Your task to perform on an android device: turn off smart reply in the gmail app Image 0: 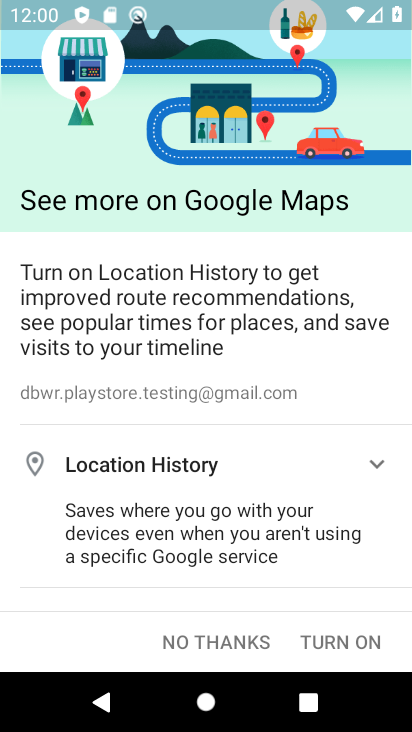
Step 0: press home button
Your task to perform on an android device: turn off smart reply in the gmail app Image 1: 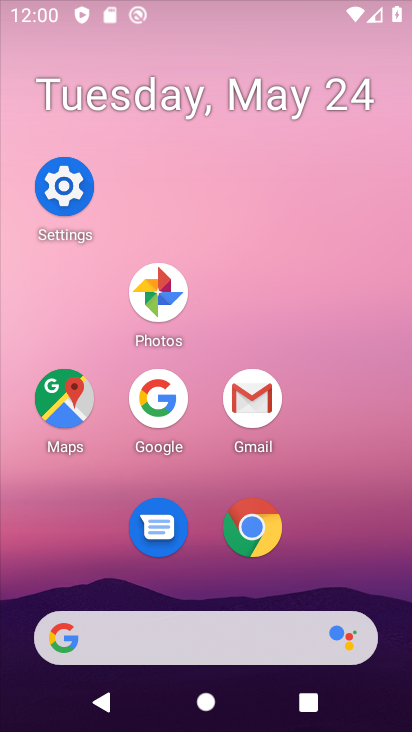
Step 1: click (247, 418)
Your task to perform on an android device: turn off smart reply in the gmail app Image 2: 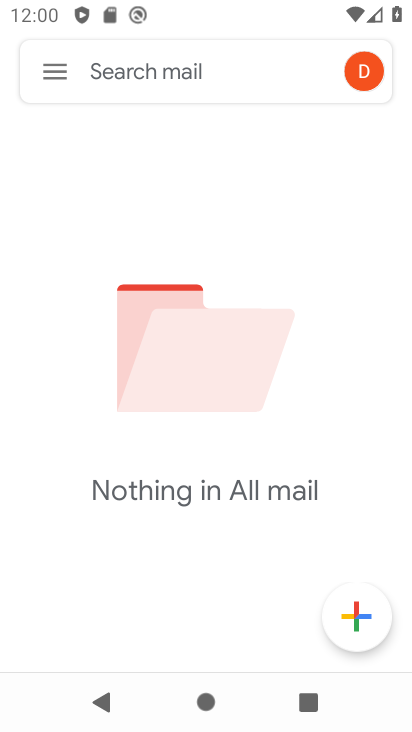
Step 2: click (64, 54)
Your task to perform on an android device: turn off smart reply in the gmail app Image 3: 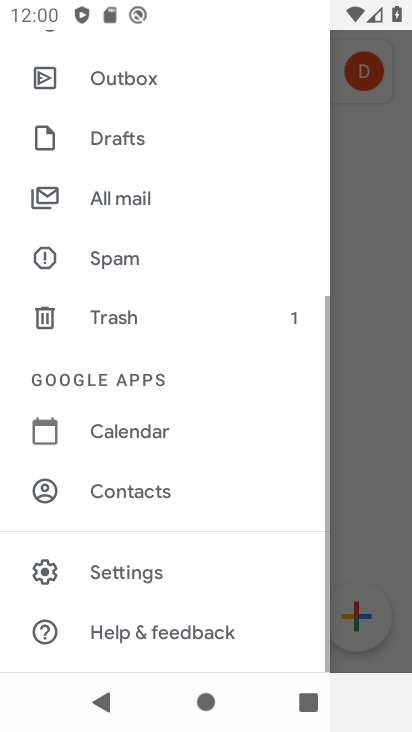
Step 3: drag from (149, 585) to (190, 209)
Your task to perform on an android device: turn off smart reply in the gmail app Image 4: 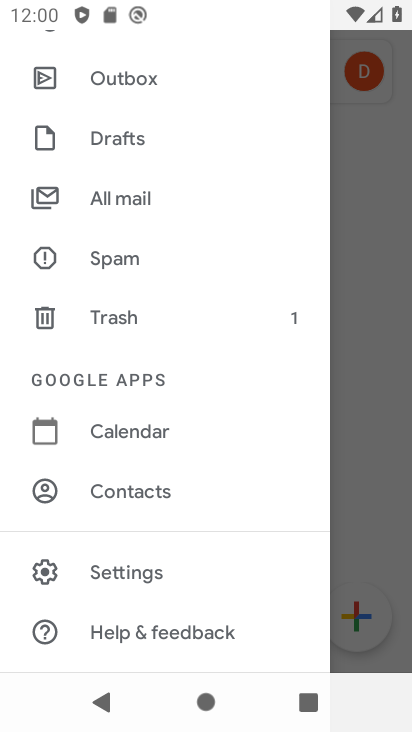
Step 4: click (175, 582)
Your task to perform on an android device: turn off smart reply in the gmail app Image 5: 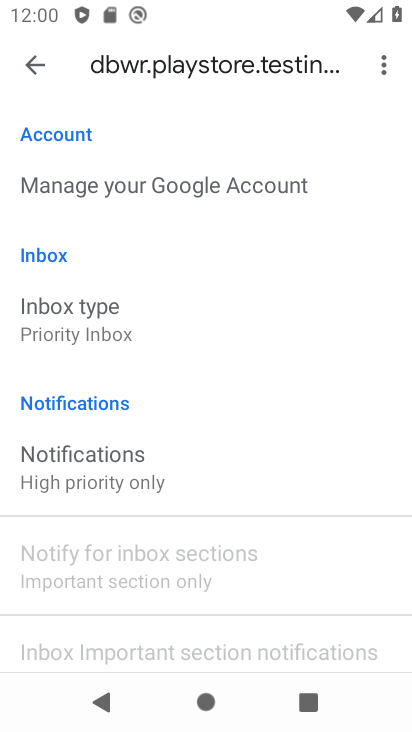
Step 5: drag from (199, 528) to (203, 82)
Your task to perform on an android device: turn off smart reply in the gmail app Image 6: 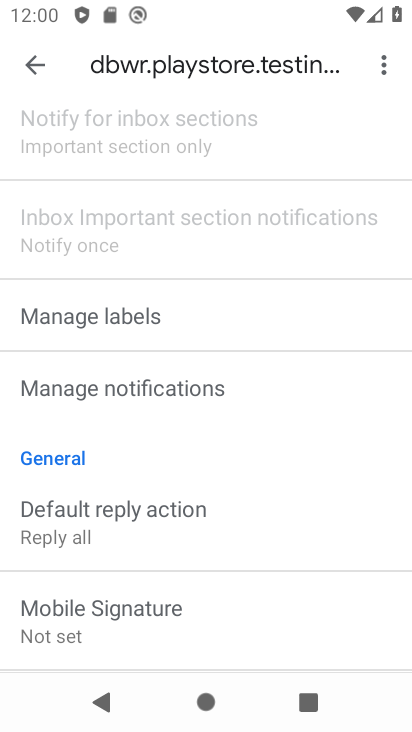
Step 6: drag from (237, 549) to (254, 131)
Your task to perform on an android device: turn off smart reply in the gmail app Image 7: 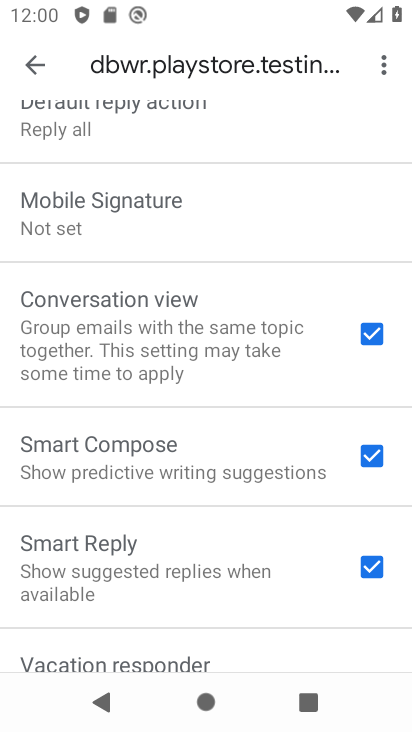
Step 7: click (378, 565)
Your task to perform on an android device: turn off smart reply in the gmail app Image 8: 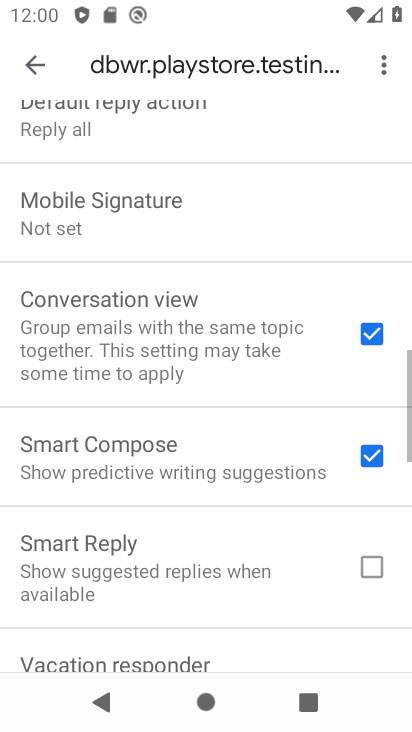
Step 8: task complete